Your task to perform on an android device: Open Google Chrome and open the bookmarks view Image 0: 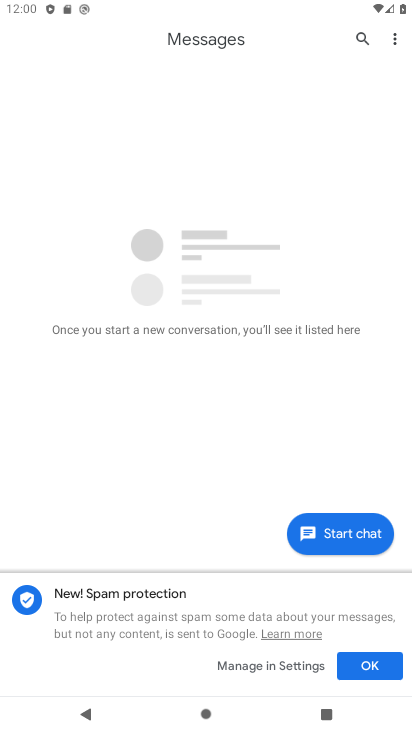
Step 0: press home button
Your task to perform on an android device: Open Google Chrome and open the bookmarks view Image 1: 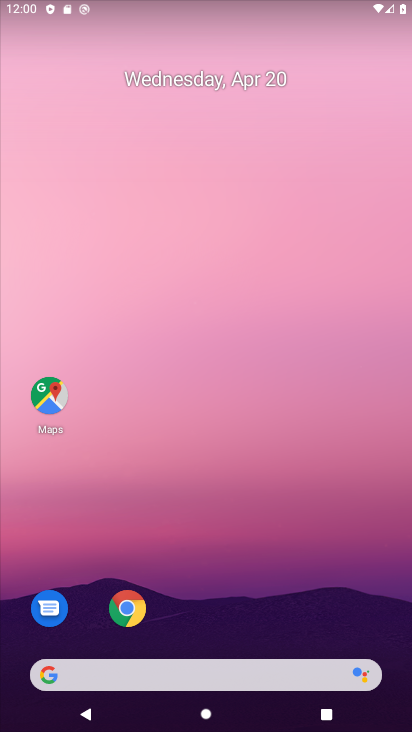
Step 1: drag from (291, 568) to (238, 94)
Your task to perform on an android device: Open Google Chrome and open the bookmarks view Image 2: 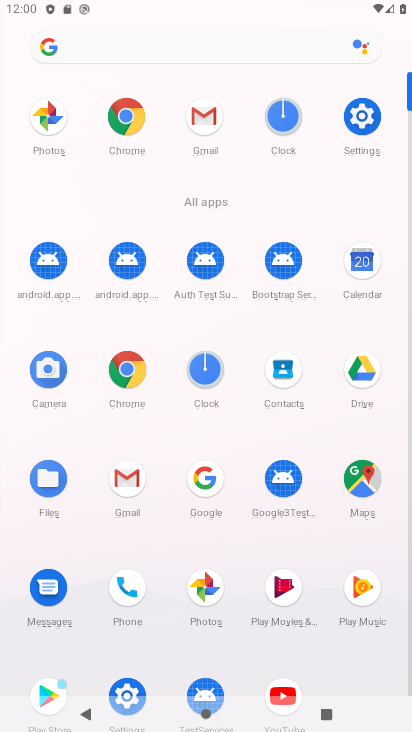
Step 2: click (125, 122)
Your task to perform on an android device: Open Google Chrome and open the bookmarks view Image 3: 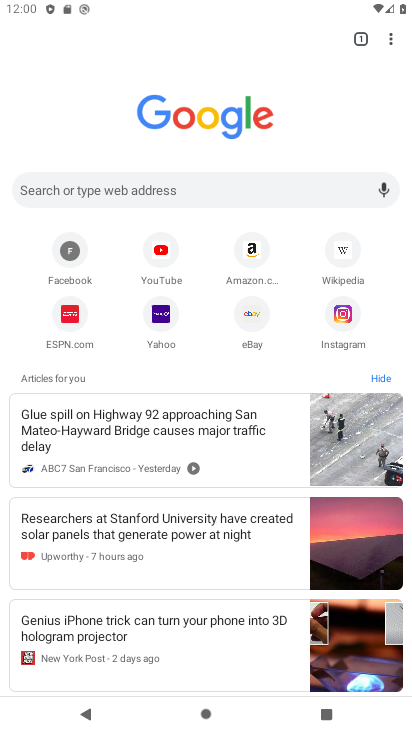
Step 3: click (391, 39)
Your task to perform on an android device: Open Google Chrome and open the bookmarks view Image 4: 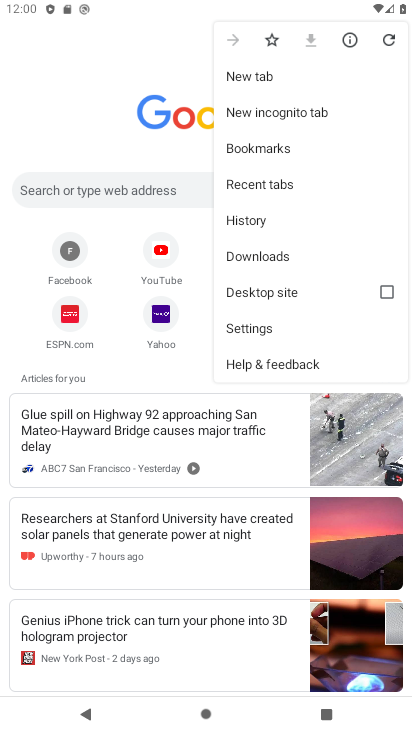
Step 4: click (284, 144)
Your task to perform on an android device: Open Google Chrome and open the bookmarks view Image 5: 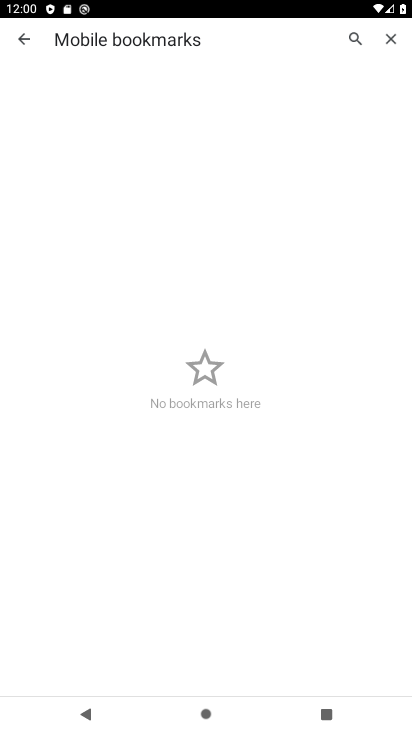
Step 5: task complete